Your task to perform on an android device: Open network settings Image 0: 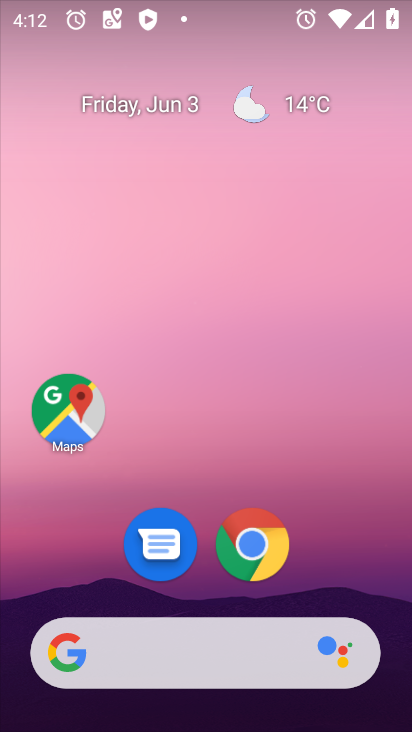
Step 0: drag from (394, 637) to (355, 104)
Your task to perform on an android device: Open network settings Image 1: 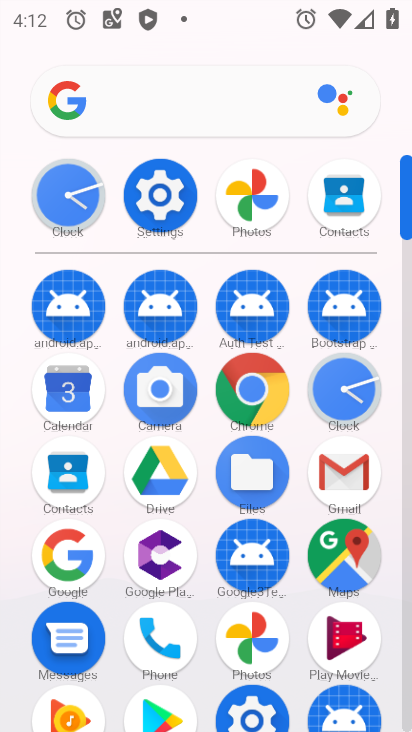
Step 1: click (402, 662)
Your task to perform on an android device: Open network settings Image 2: 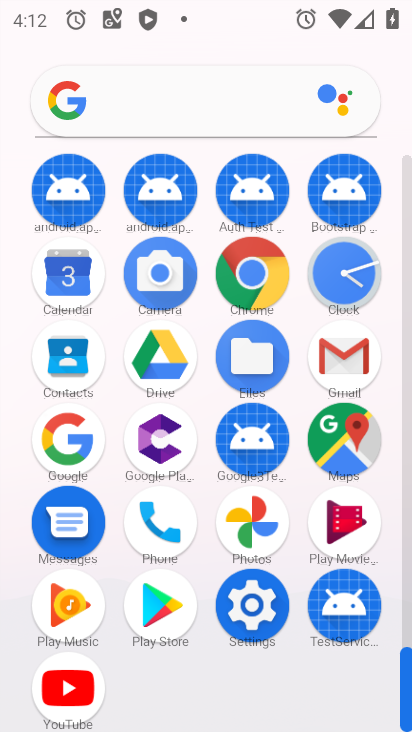
Step 2: click (252, 605)
Your task to perform on an android device: Open network settings Image 3: 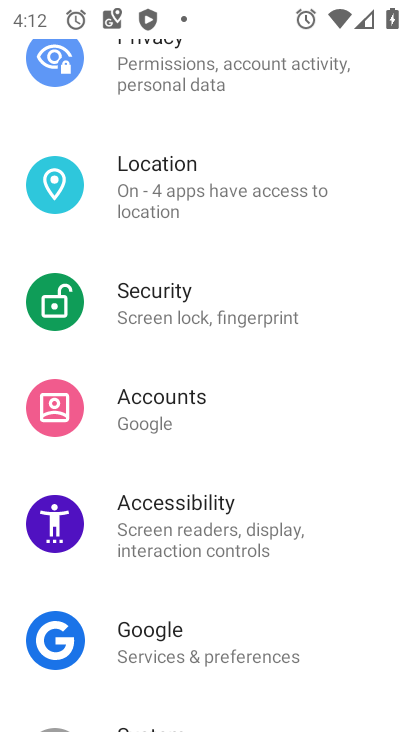
Step 3: drag from (323, 211) to (351, 591)
Your task to perform on an android device: Open network settings Image 4: 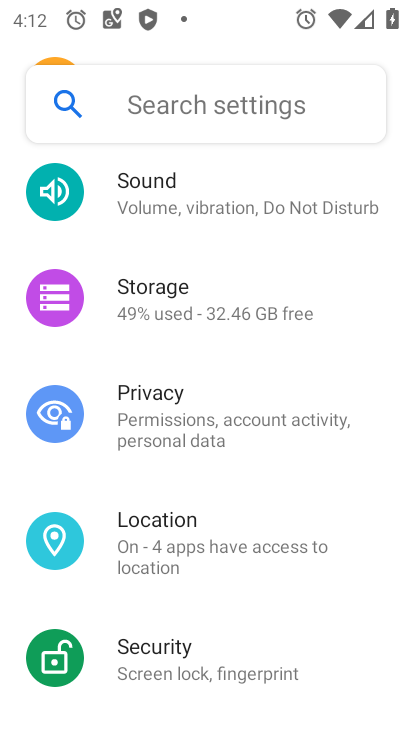
Step 4: drag from (362, 248) to (348, 535)
Your task to perform on an android device: Open network settings Image 5: 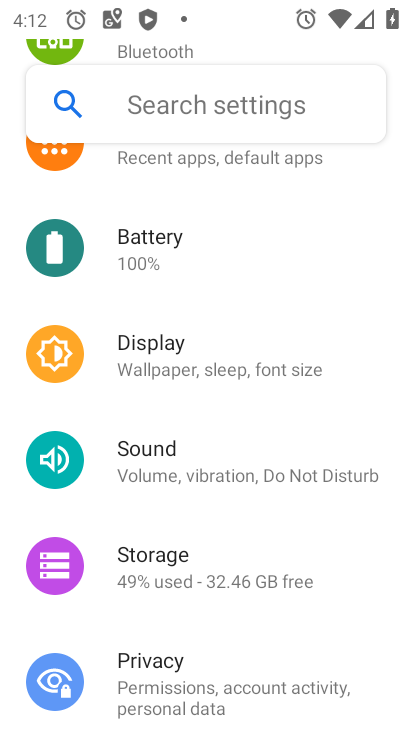
Step 5: drag from (332, 248) to (354, 541)
Your task to perform on an android device: Open network settings Image 6: 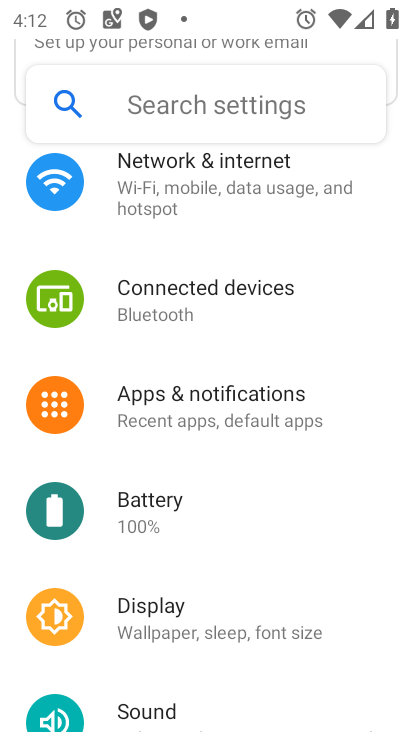
Step 6: drag from (357, 247) to (342, 455)
Your task to perform on an android device: Open network settings Image 7: 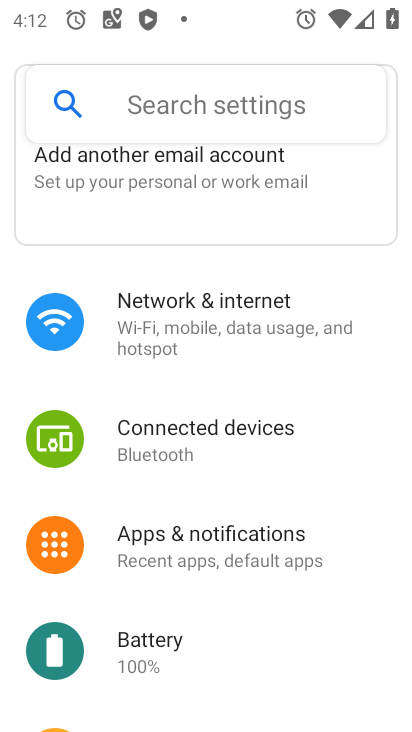
Step 7: click (167, 303)
Your task to perform on an android device: Open network settings Image 8: 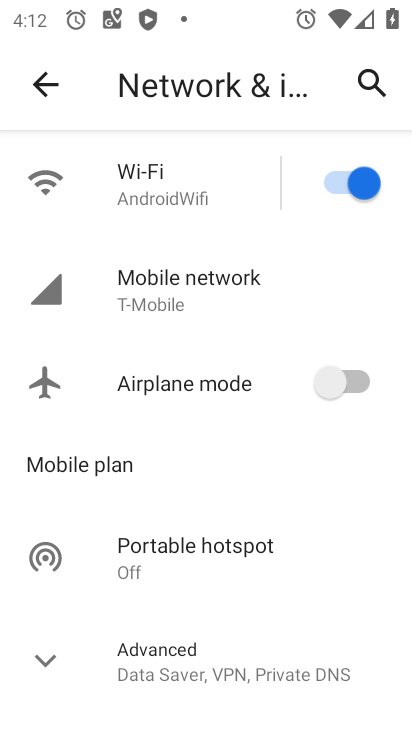
Step 8: click (194, 290)
Your task to perform on an android device: Open network settings Image 9: 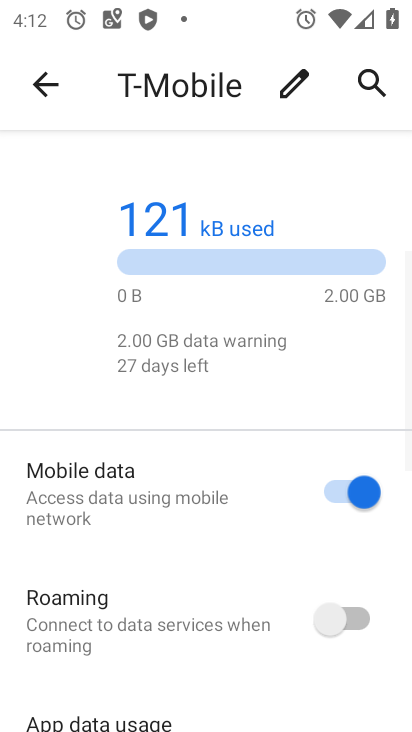
Step 9: task complete